Your task to perform on an android device: turn on priority inbox in the gmail app Image 0: 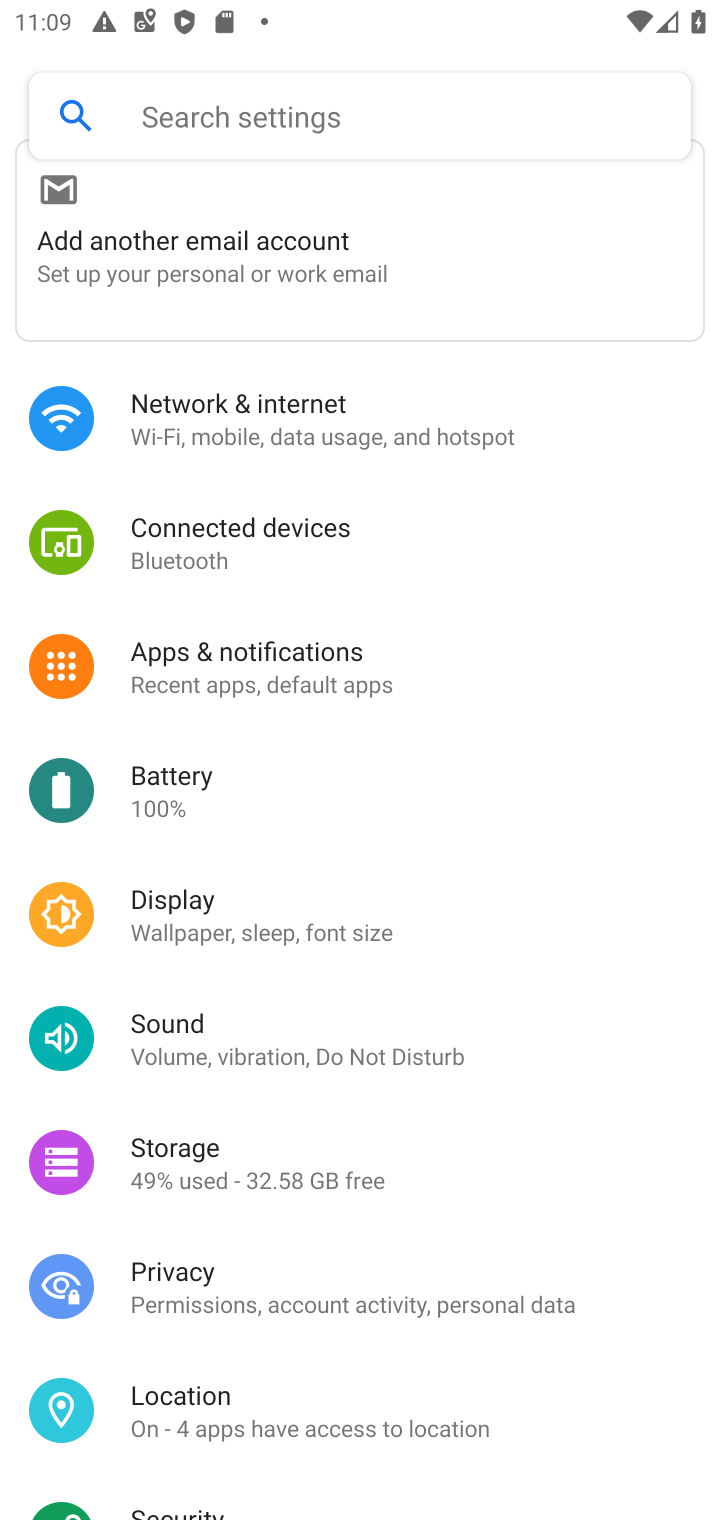
Step 0: press home button
Your task to perform on an android device: turn on priority inbox in the gmail app Image 1: 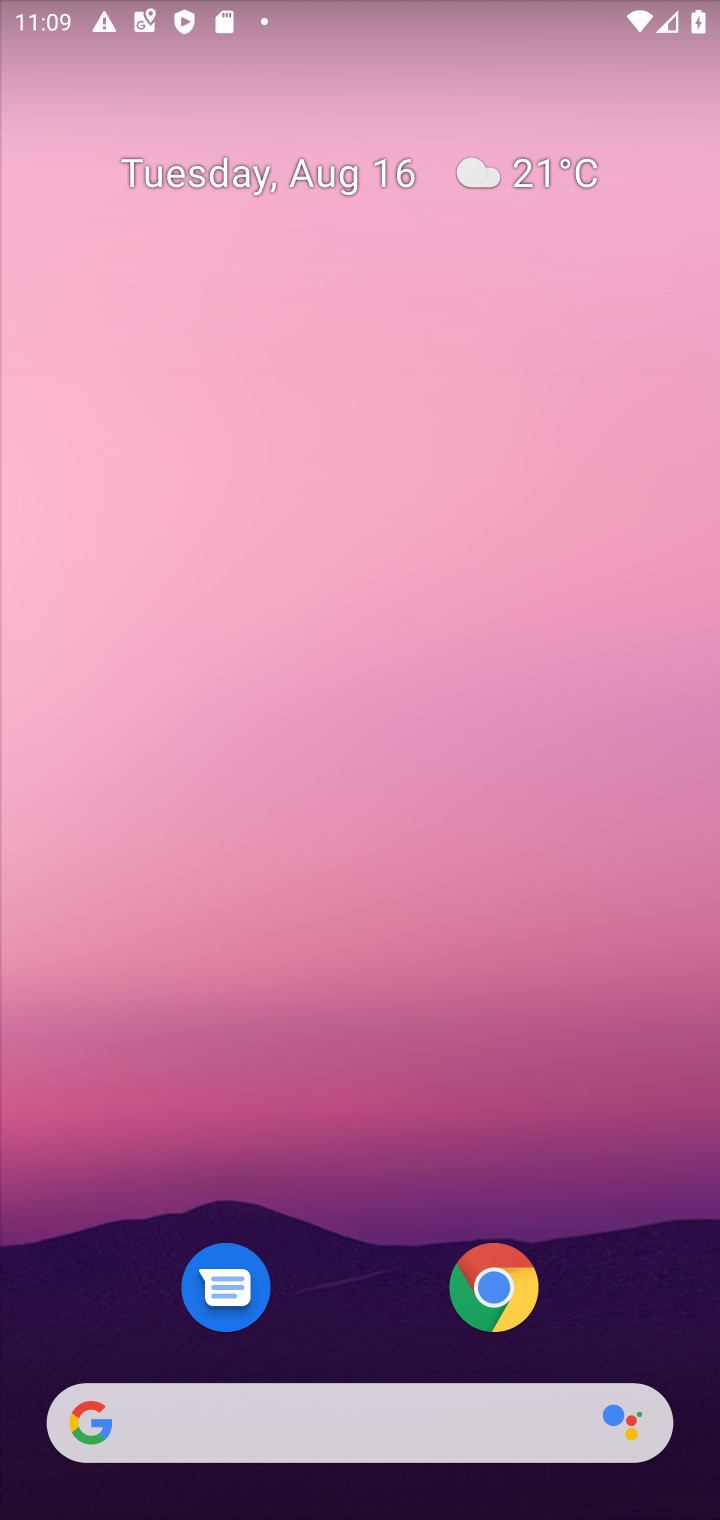
Step 1: drag from (673, 1309) to (617, 300)
Your task to perform on an android device: turn on priority inbox in the gmail app Image 2: 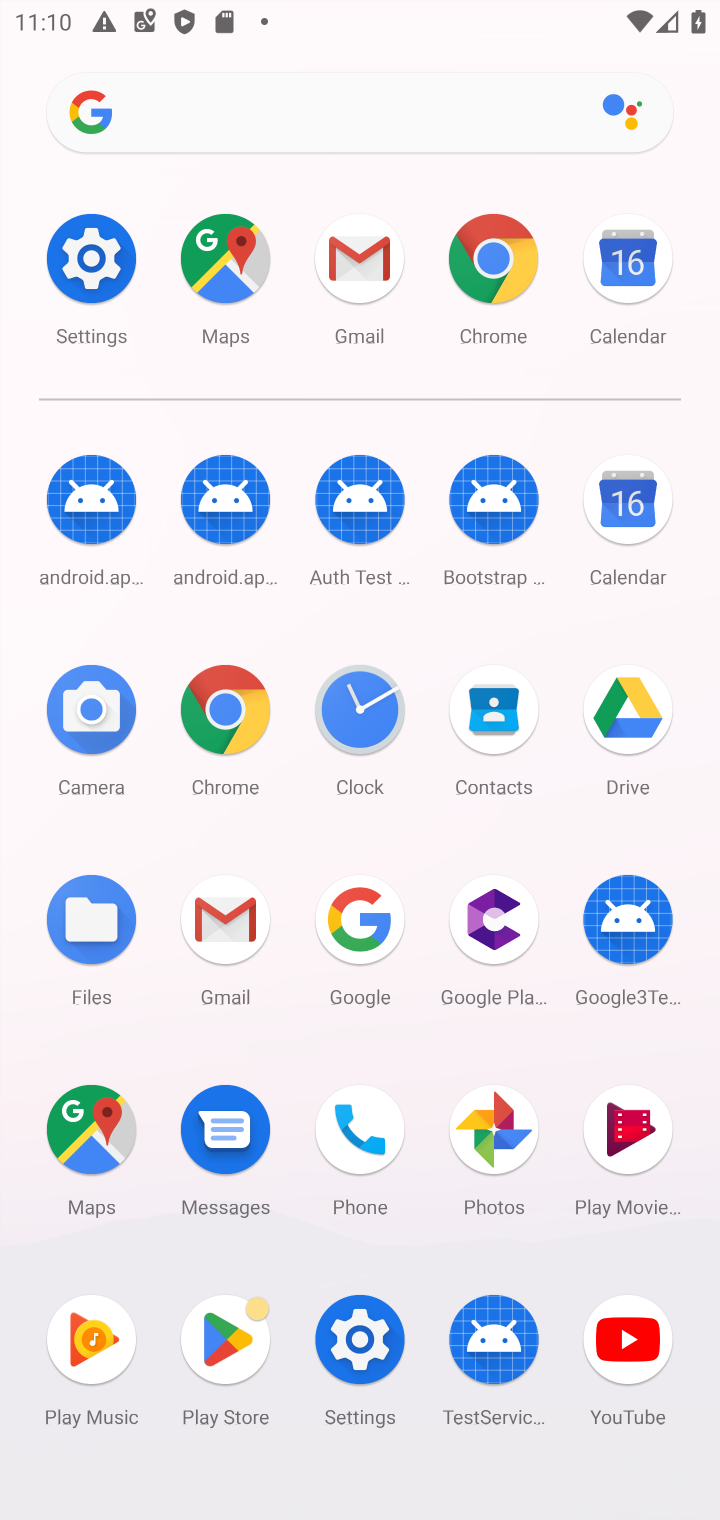
Step 2: click (223, 922)
Your task to perform on an android device: turn on priority inbox in the gmail app Image 3: 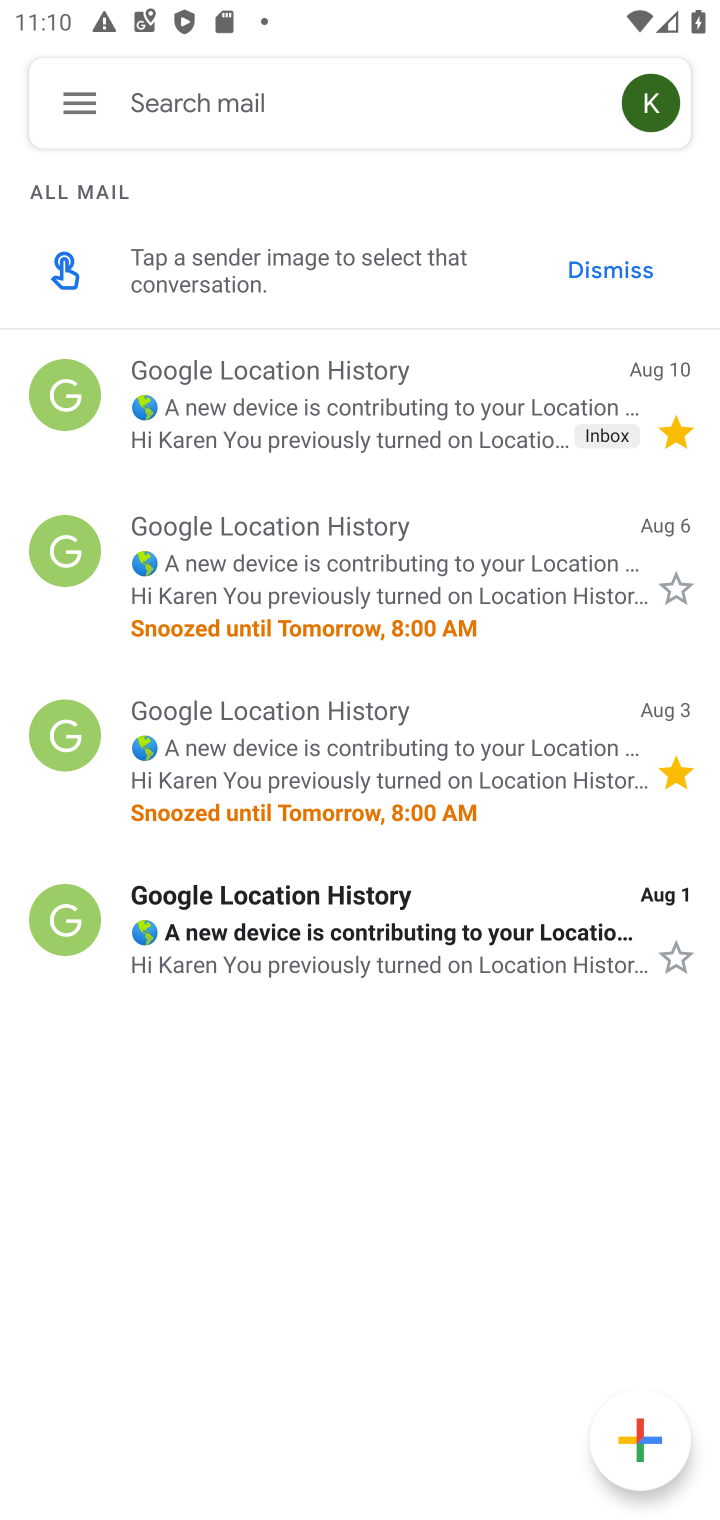
Step 3: click (63, 103)
Your task to perform on an android device: turn on priority inbox in the gmail app Image 4: 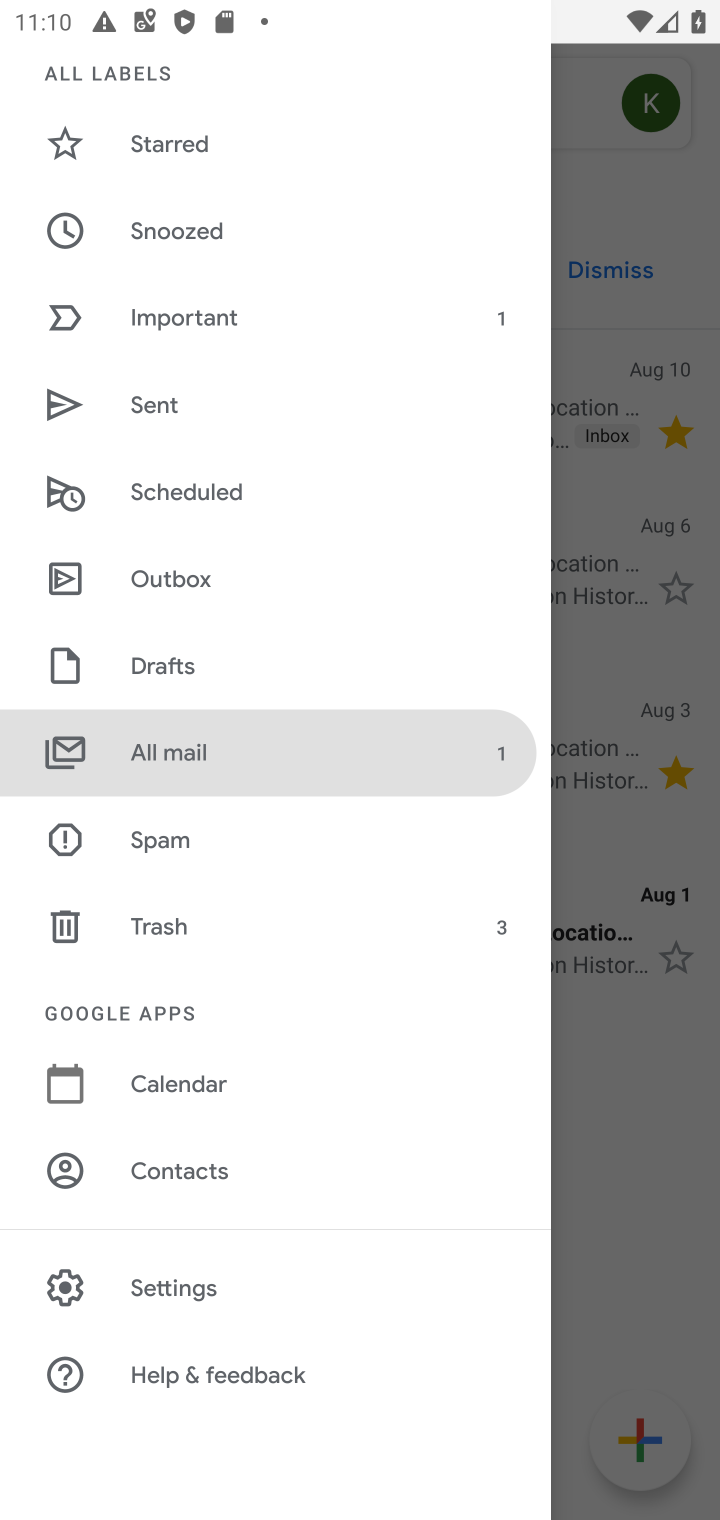
Step 4: click (156, 1280)
Your task to perform on an android device: turn on priority inbox in the gmail app Image 5: 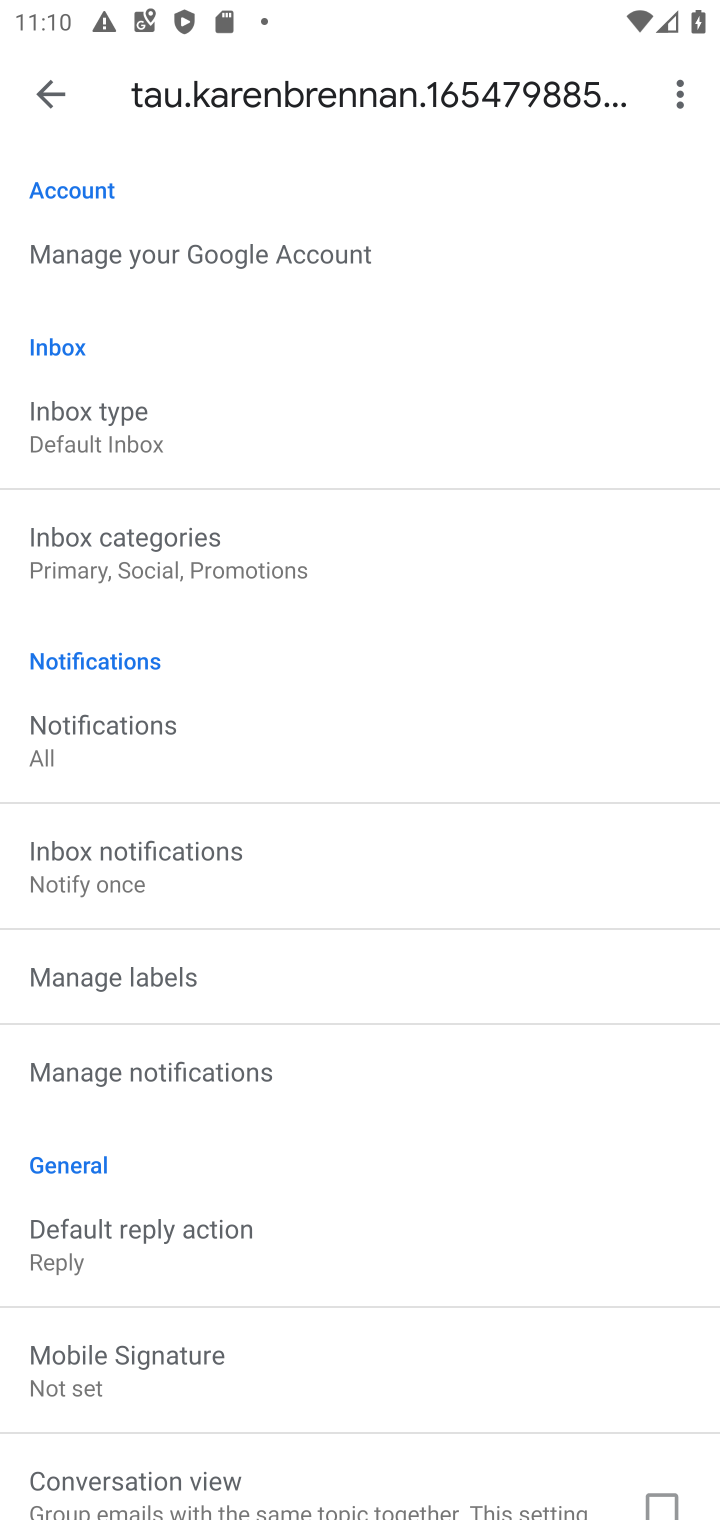
Step 5: click (96, 435)
Your task to perform on an android device: turn on priority inbox in the gmail app Image 6: 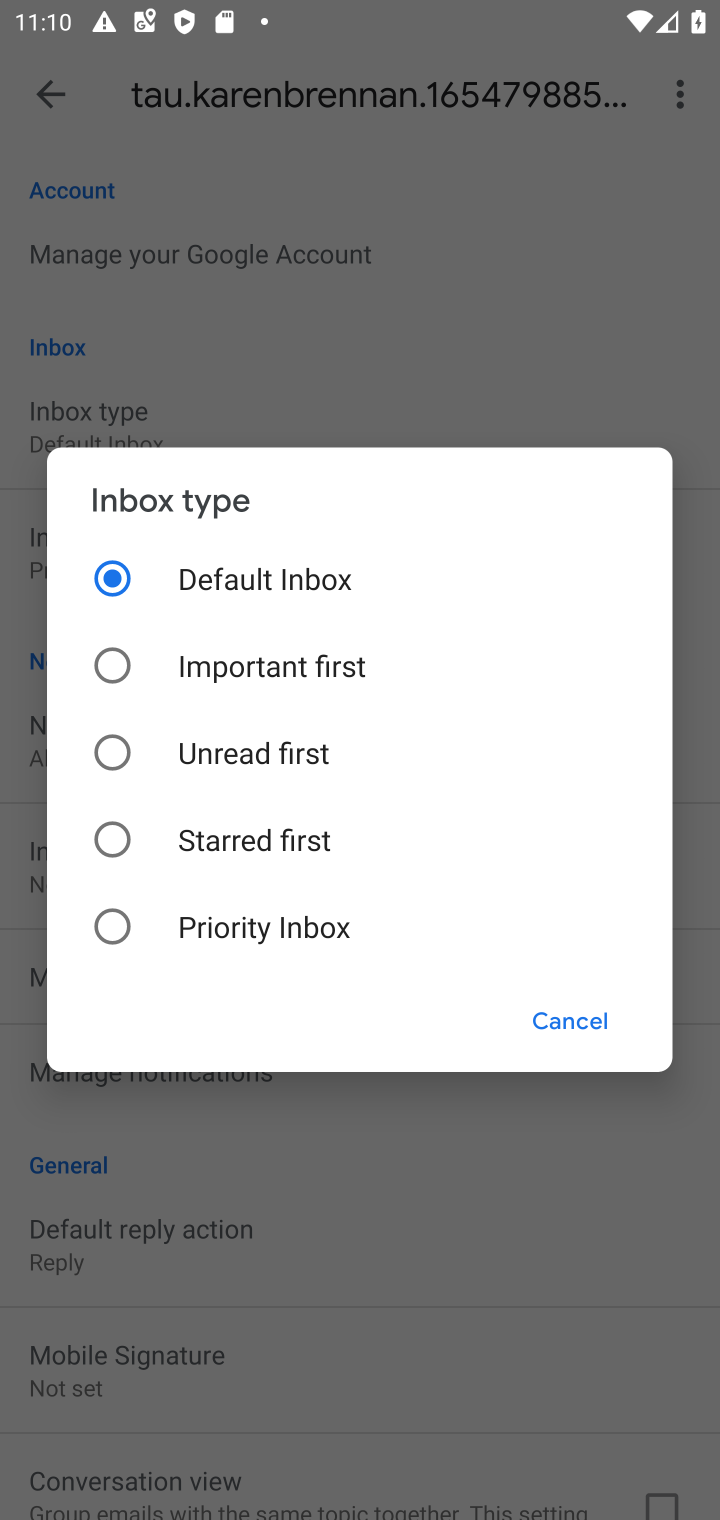
Step 6: click (120, 939)
Your task to perform on an android device: turn on priority inbox in the gmail app Image 7: 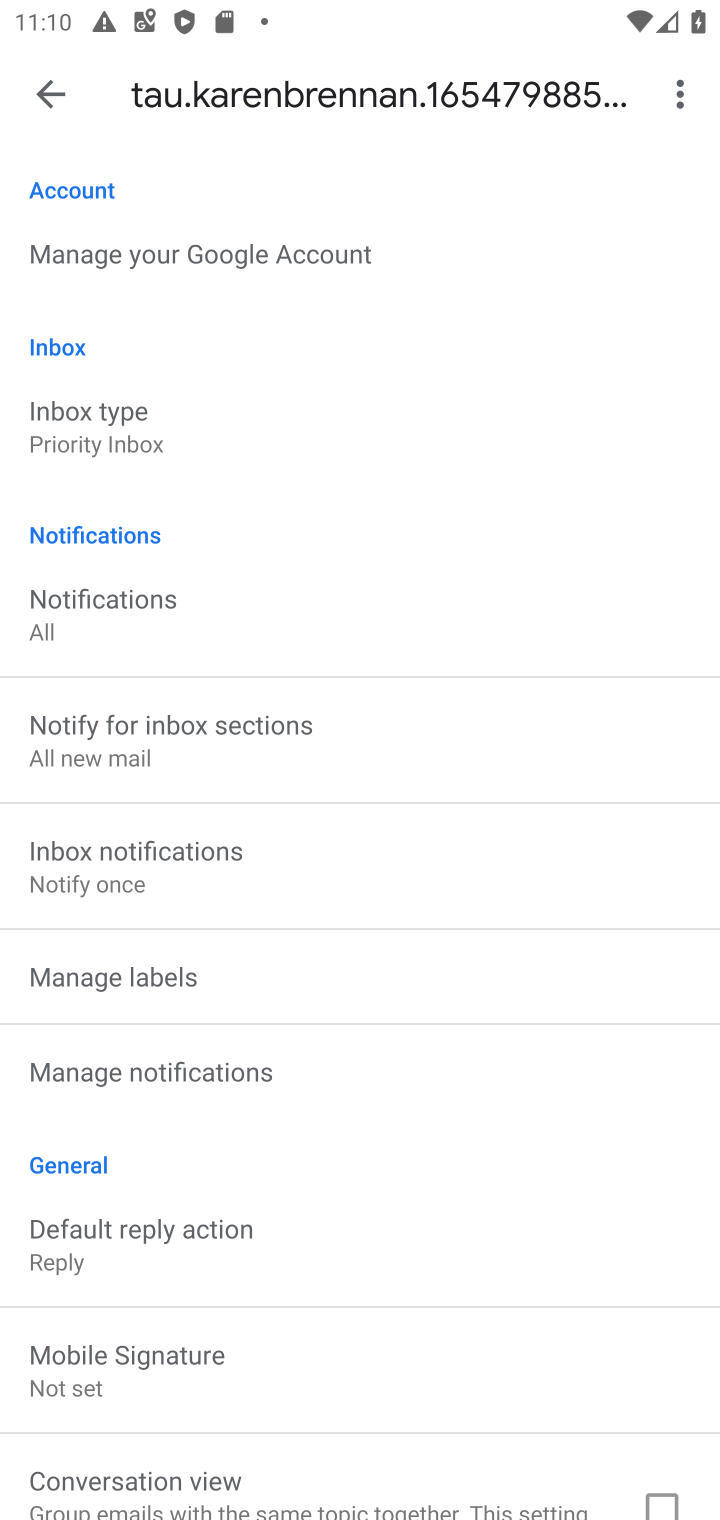
Step 7: task complete